Your task to perform on an android device: Go to accessibility settings Image 0: 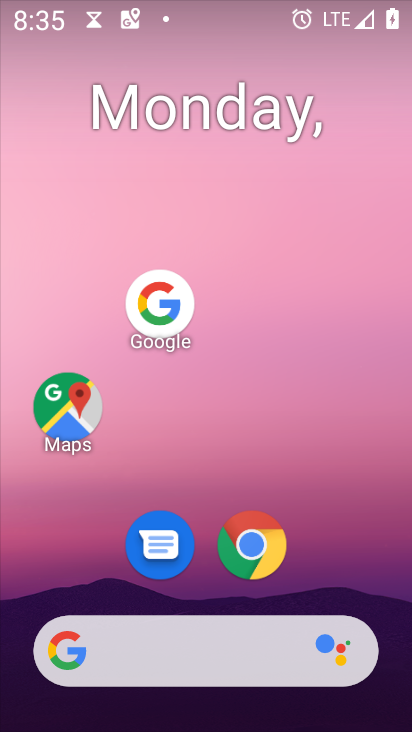
Step 0: drag from (205, 632) to (335, 97)
Your task to perform on an android device: Go to accessibility settings Image 1: 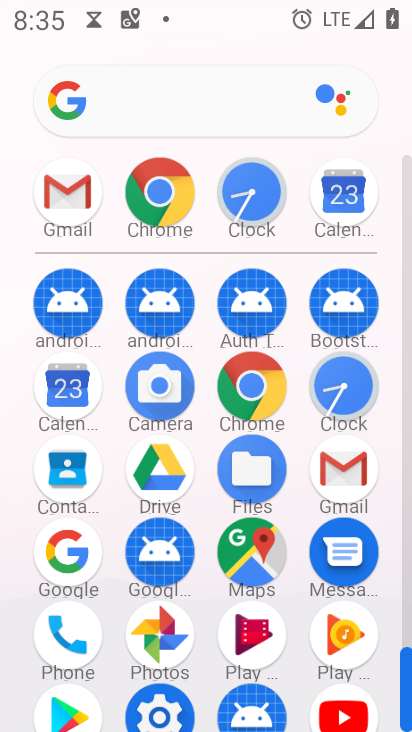
Step 1: drag from (169, 650) to (288, 174)
Your task to perform on an android device: Go to accessibility settings Image 2: 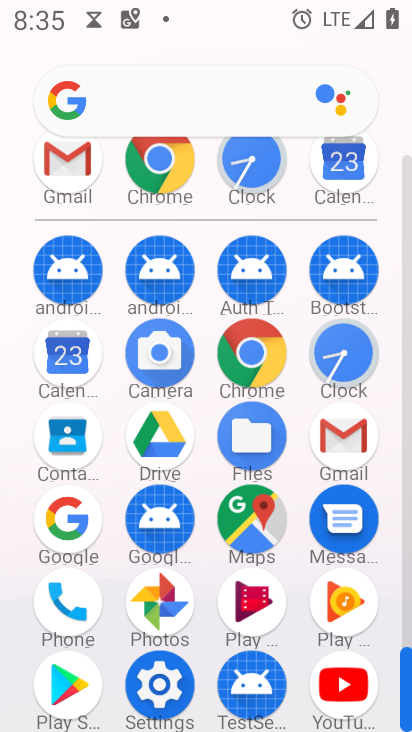
Step 2: click (166, 687)
Your task to perform on an android device: Go to accessibility settings Image 3: 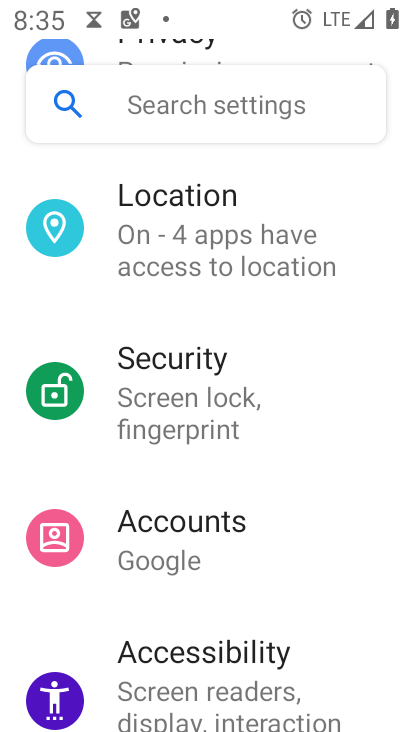
Step 3: click (187, 664)
Your task to perform on an android device: Go to accessibility settings Image 4: 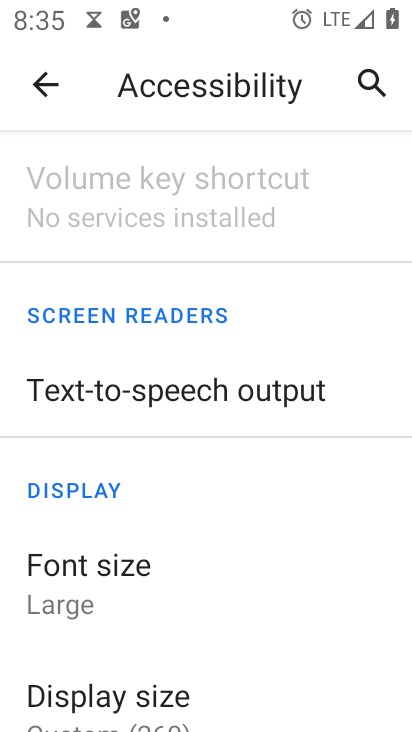
Step 4: task complete